Your task to perform on an android device: toggle javascript in the chrome app Image 0: 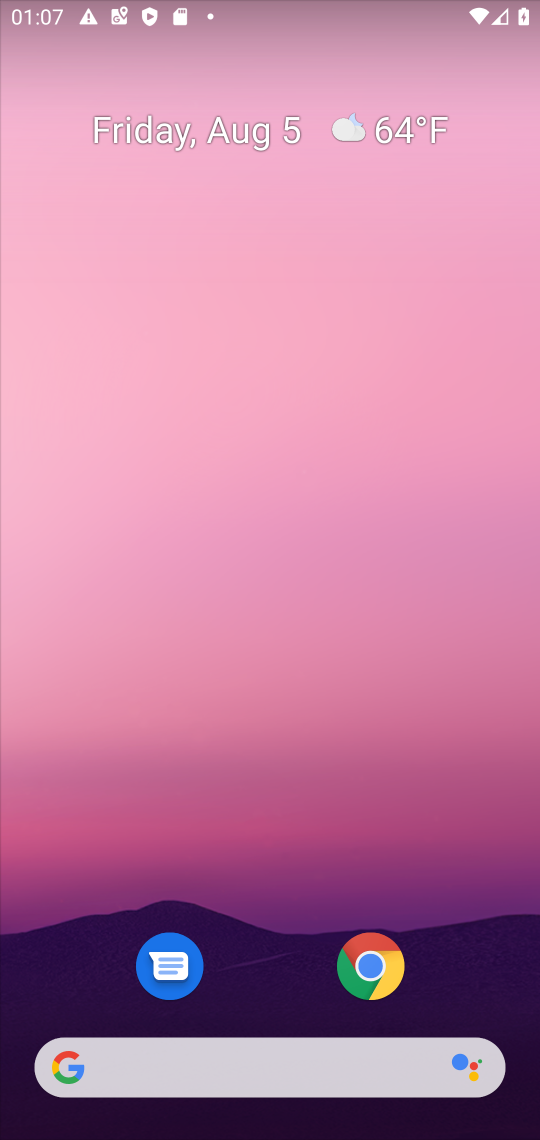
Step 0: click (383, 966)
Your task to perform on an android device: toggle javascript in the chrome app Image 1: 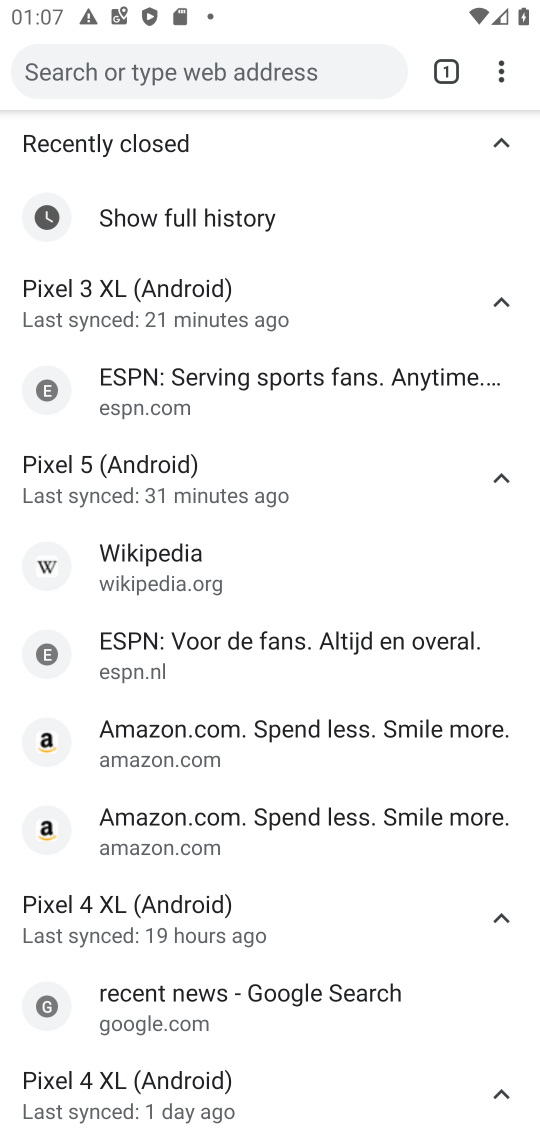
Step 1: click (501, 69)
Your task to perform on an android device: toggle javascript in the chrome app Image 2: 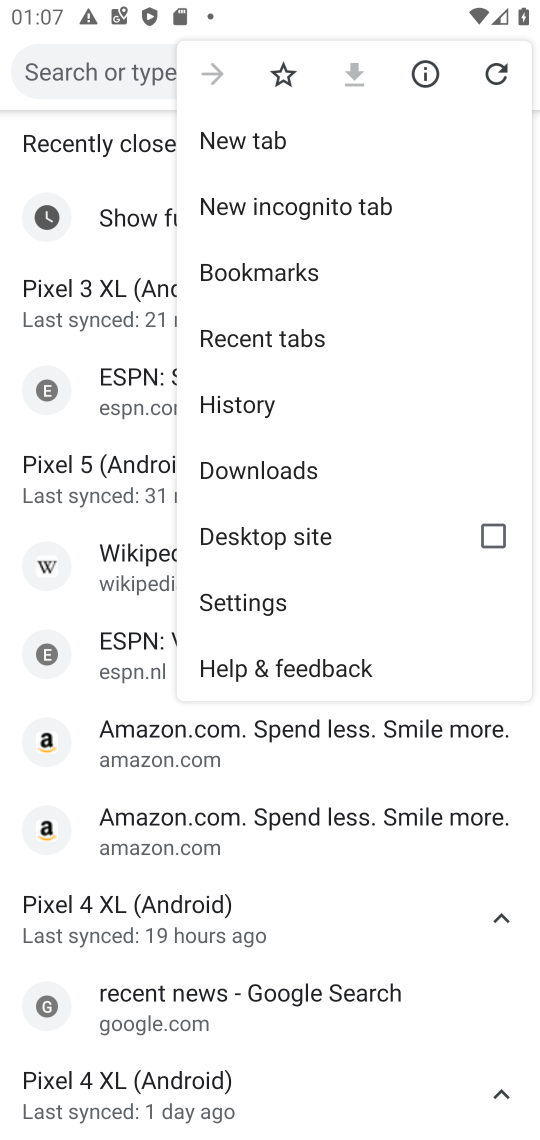
Step 2: click (277, 592)
Your task to perform on an android device: toggle javascript in the chrome app Image 3: 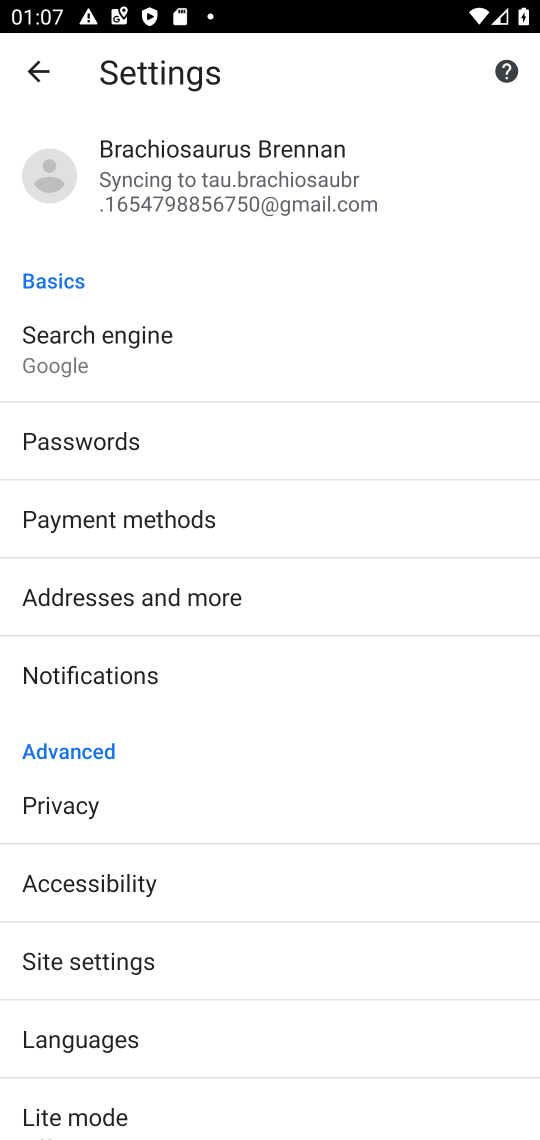
Step 3: drag from (258, 950) to (330, 390)
Your task to perform on an android device: toggle javascript in the chrome app Image 4: 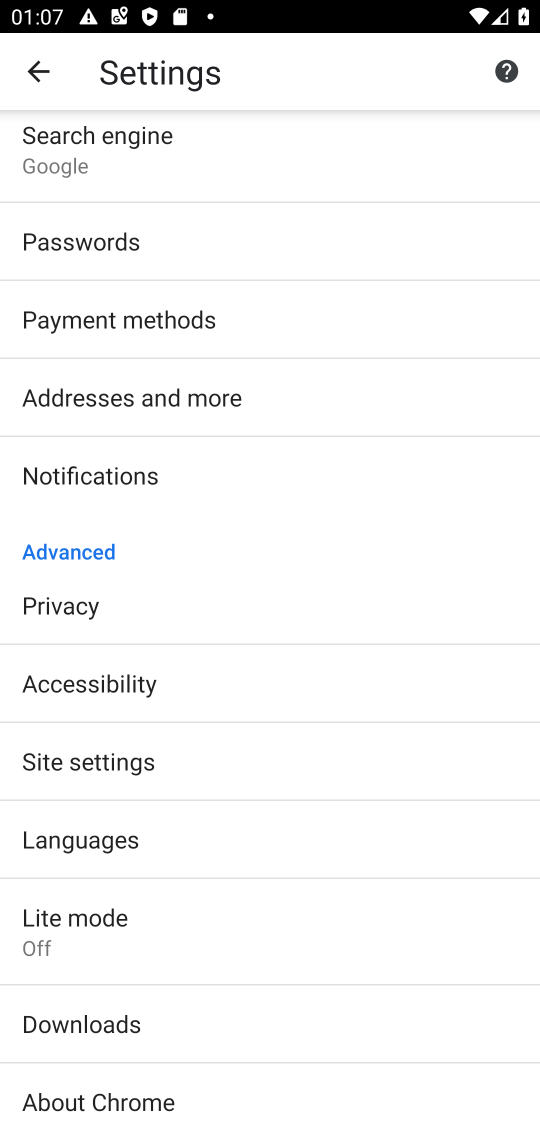
Step 4: click (237, 759)
Your task to perform on an android device: toggle javascript in the chrome app Image 5: 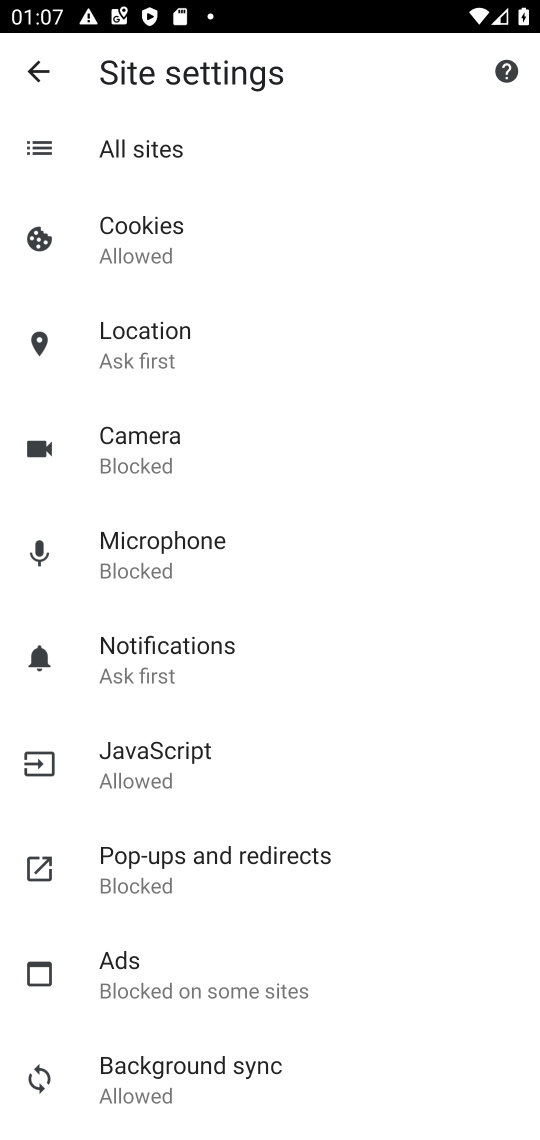
Step 5: click (232, 762)
Your task to perform on an android device: toggle javascript in the chrome app Image 6: 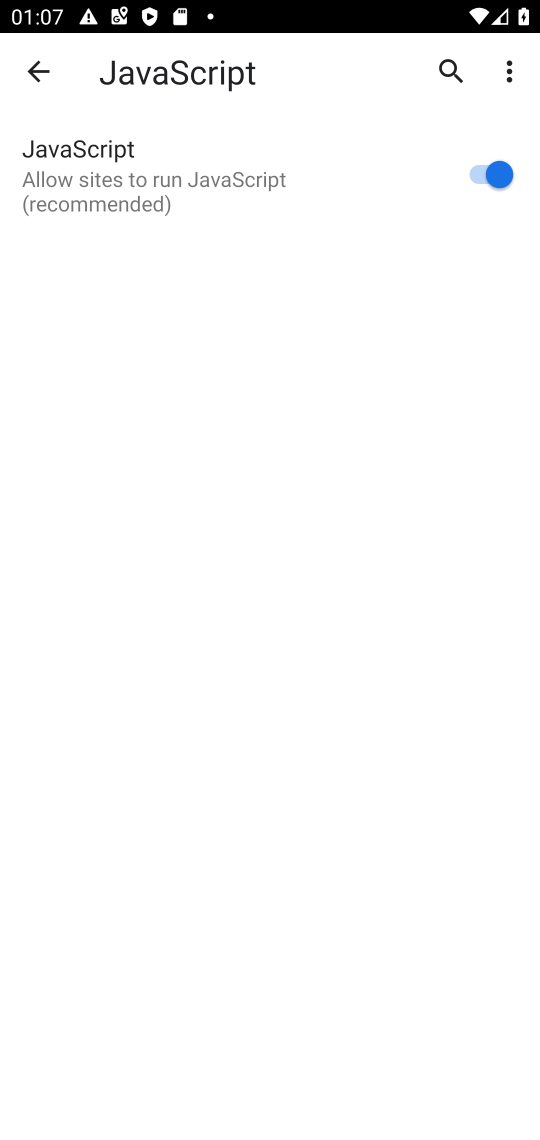
Step 6: click (486, 163)
Your task to perform on an android device: toggle javascript in the chrome app Image 7: 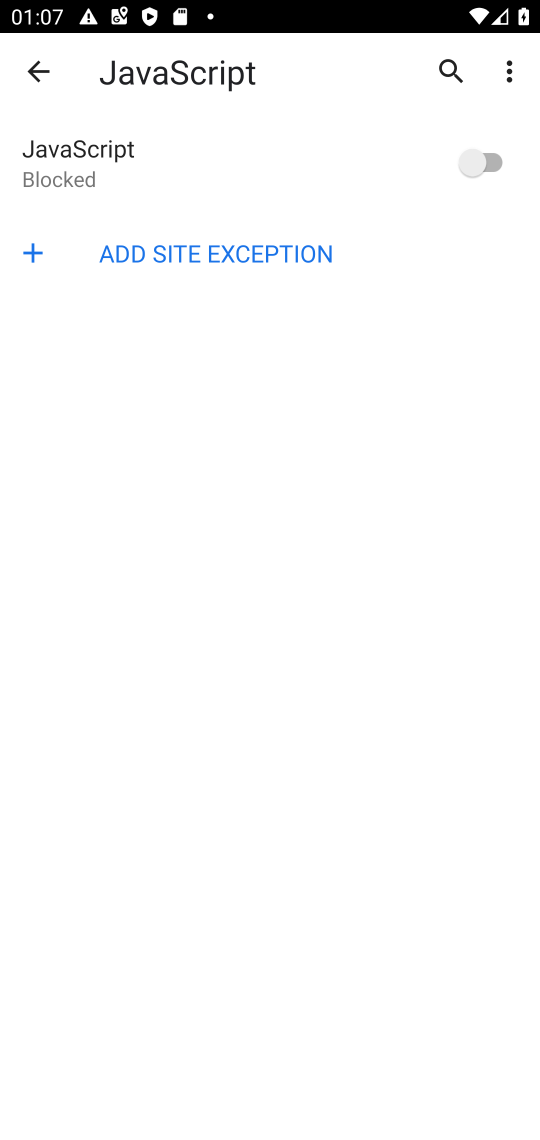
Step 7: task complete